Your task to perform on an android device: turn on improve location accuracy Image 0: 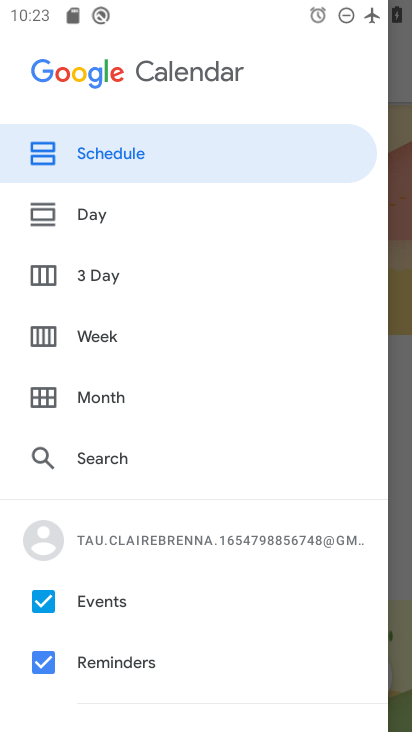
Step 0: press home button
Your task to perform on an android device: turn on improve location accuracy Image 1: 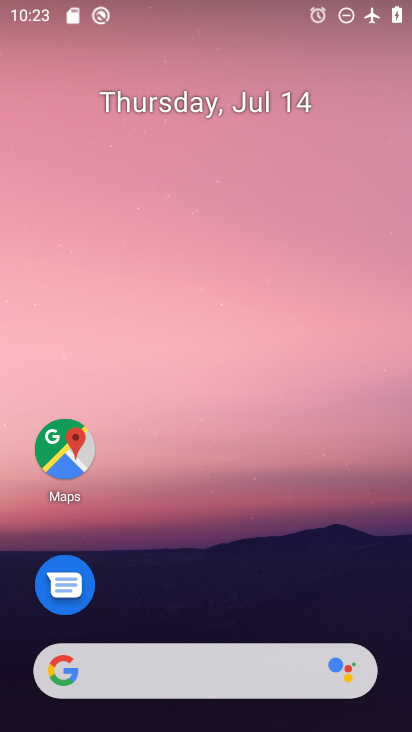
Step 1: drag from (222, 616) to (257, 35)
Your task to perform on an android device: turn on improve location accuracy Image 2: 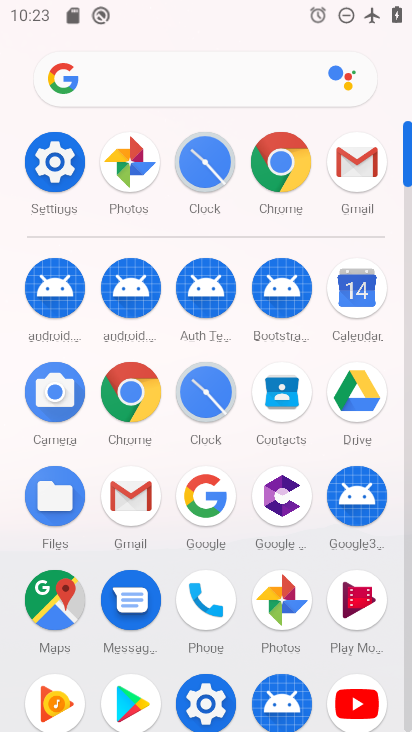
Step 2: click (47, 156)
Your task to perform on an android device: turn on improve location accuracy Image 3: 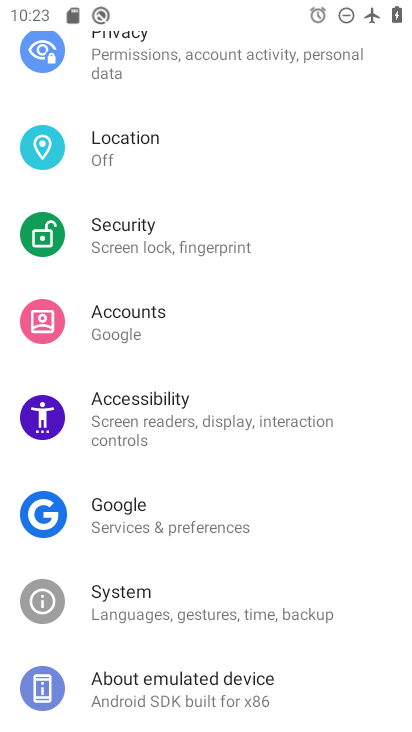
Step 3: click (145, 136)
Your task to perform on an android device: turn on improve location accuracy Image 4: 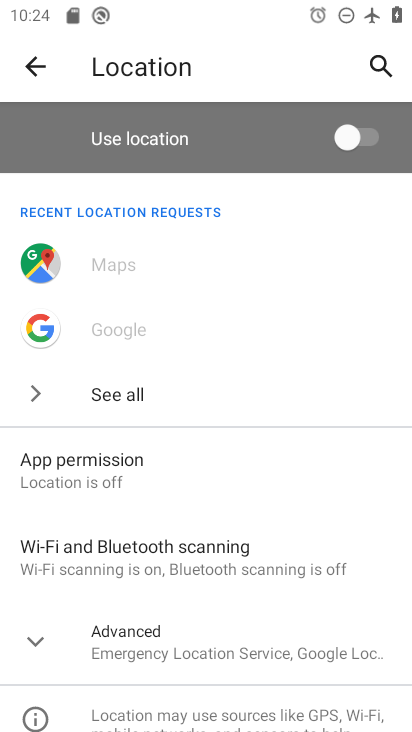
Step 4: click (153, 613)
Your task to perform on an android device: turn on improve location accuracy Image 5: 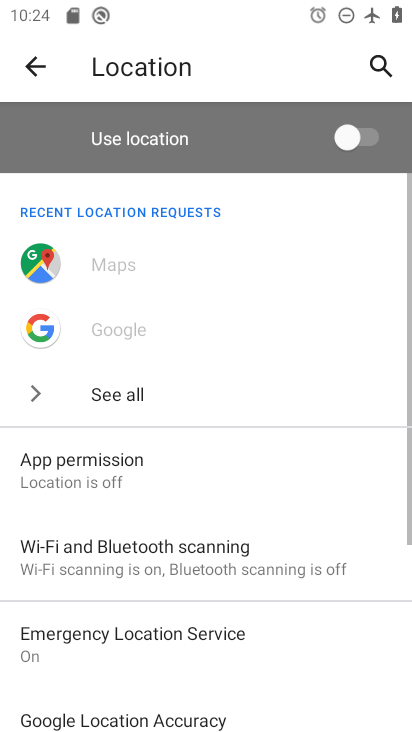
Step 5: drag from (153, 613) to (140, 275)
Your task to perform on an android device: turn on improve location accuracy Image 6: 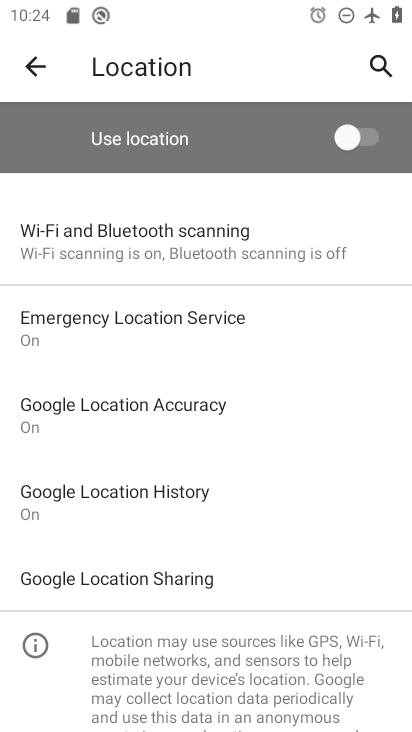
Step 6: click (178, 410)
Your task to perform on an android device: turn on improve location accuracy Image 7: 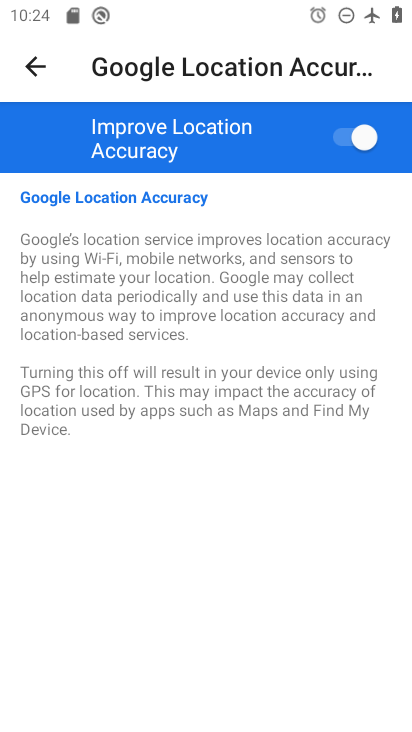
Step 7: task complete